Your task to perform on an android device: Search for 'The Girl on the Train' on Goodreads. Image 0: 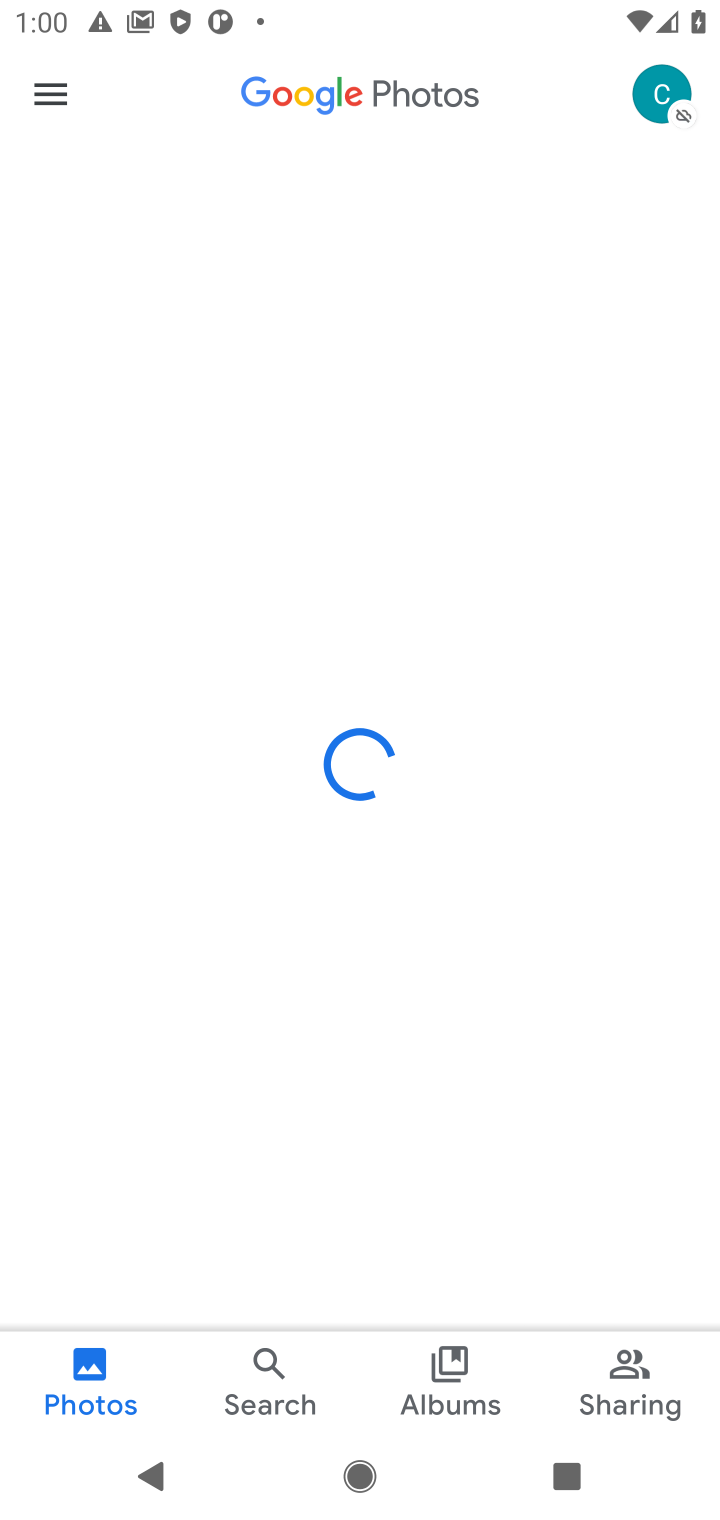
Step 0: press home button
Your task to perform on an android device: Search for 'The Girl on the Train' on Goodreads. Image 1: 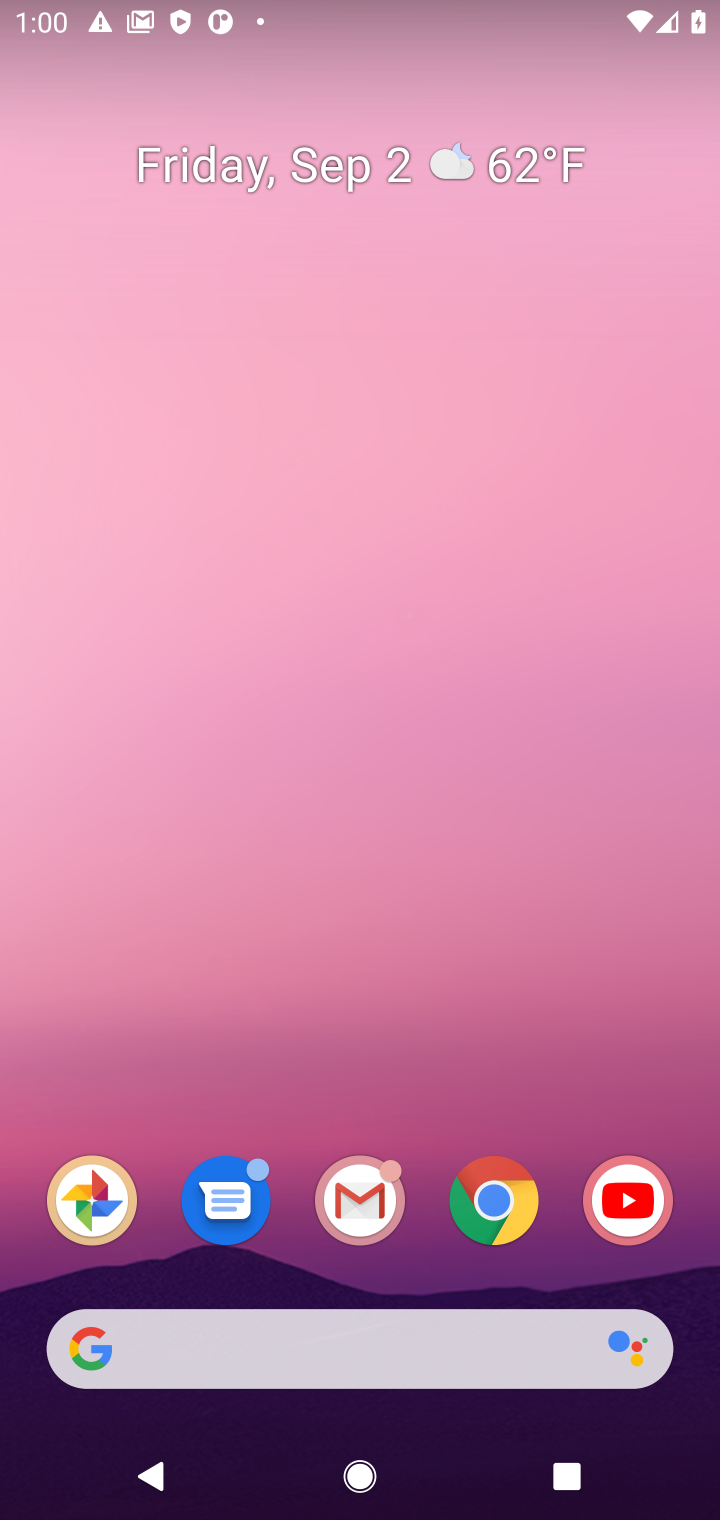
Step 1: click (484, 1202)
Your task to perform on an android device: Search for 'The Girl on the Train' on Goodreads. Image 2: 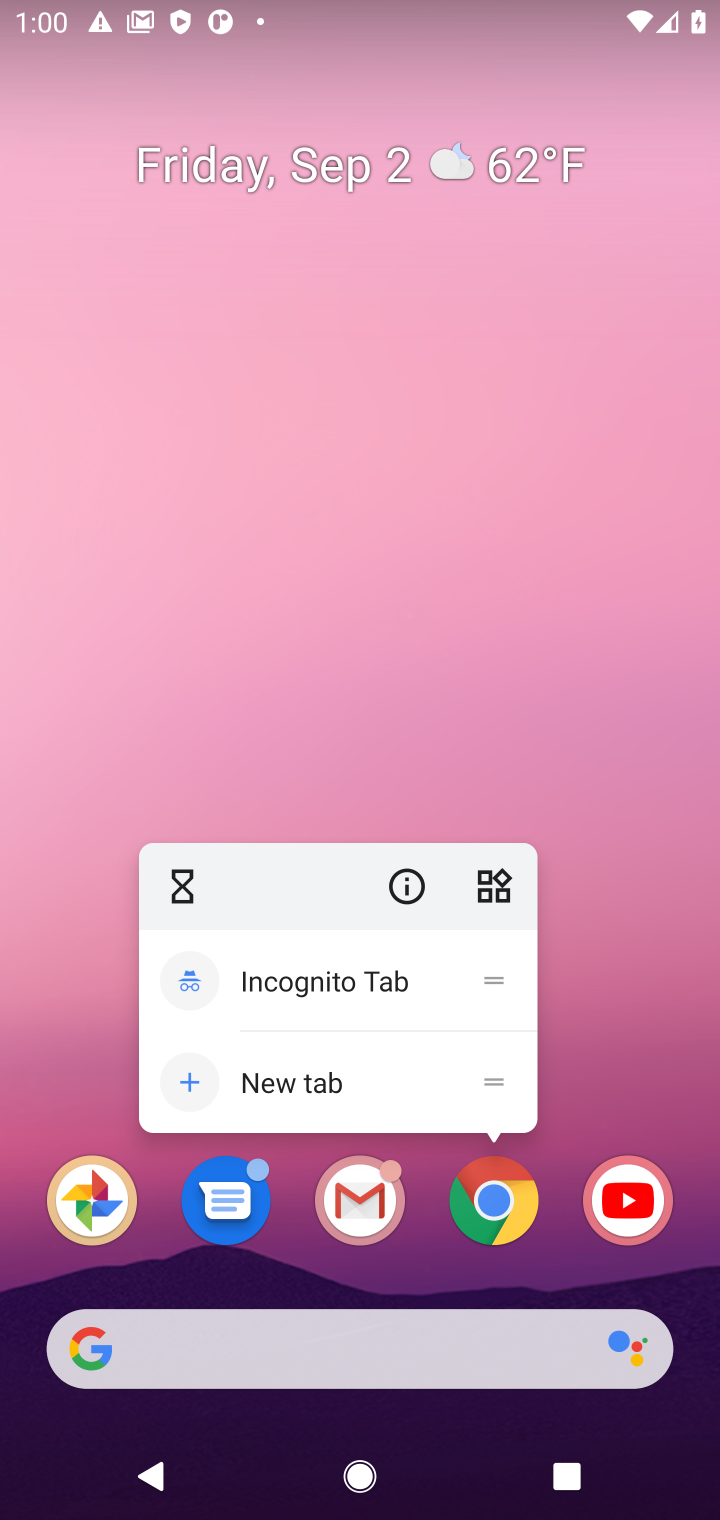
Step 2: click (484, 1204)
Your task to perform on an android device: Search for 'The Girl on the Train' on Goodreads. Image 3: 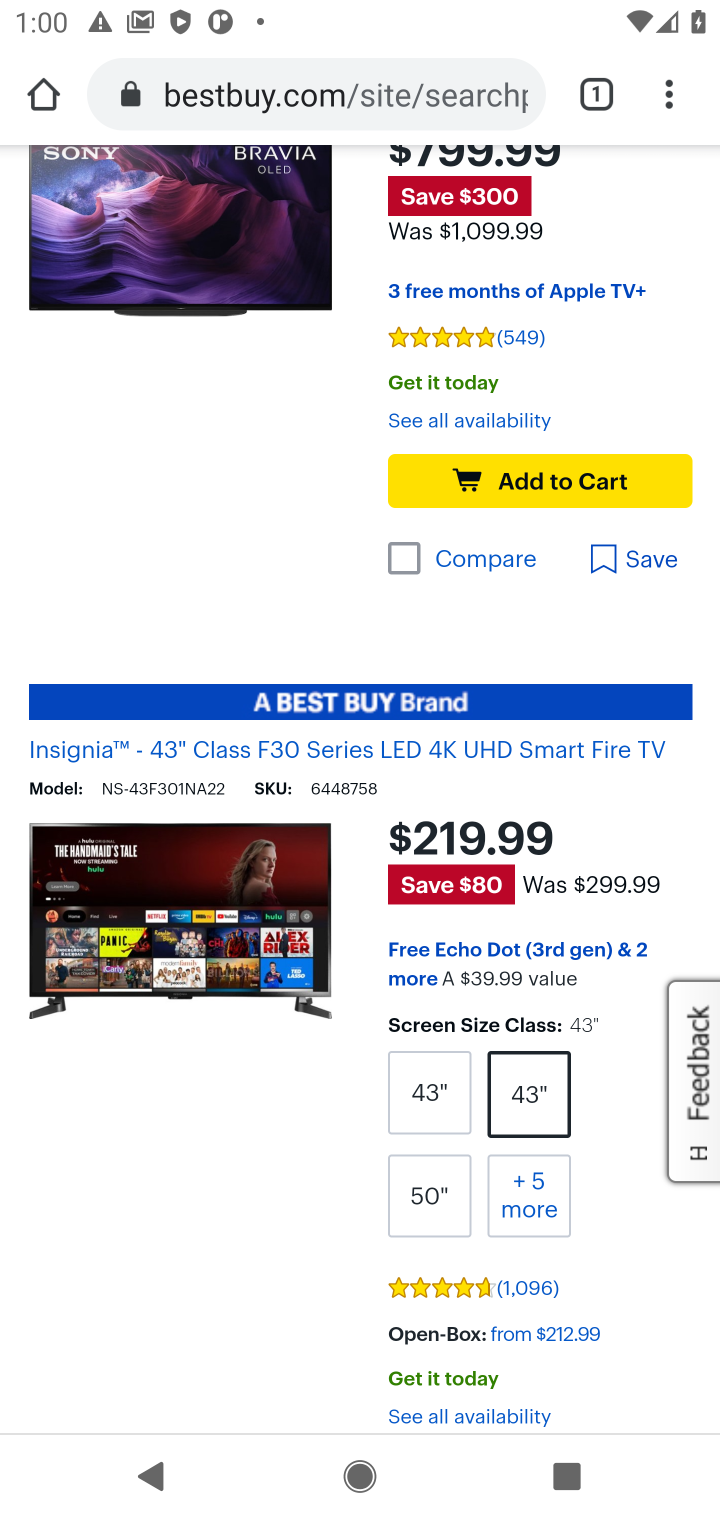
Step 3: click (448, 81)
Your task to perform on an android device: Search for 'The Girl on the Train' on Goodreads. Image 4: 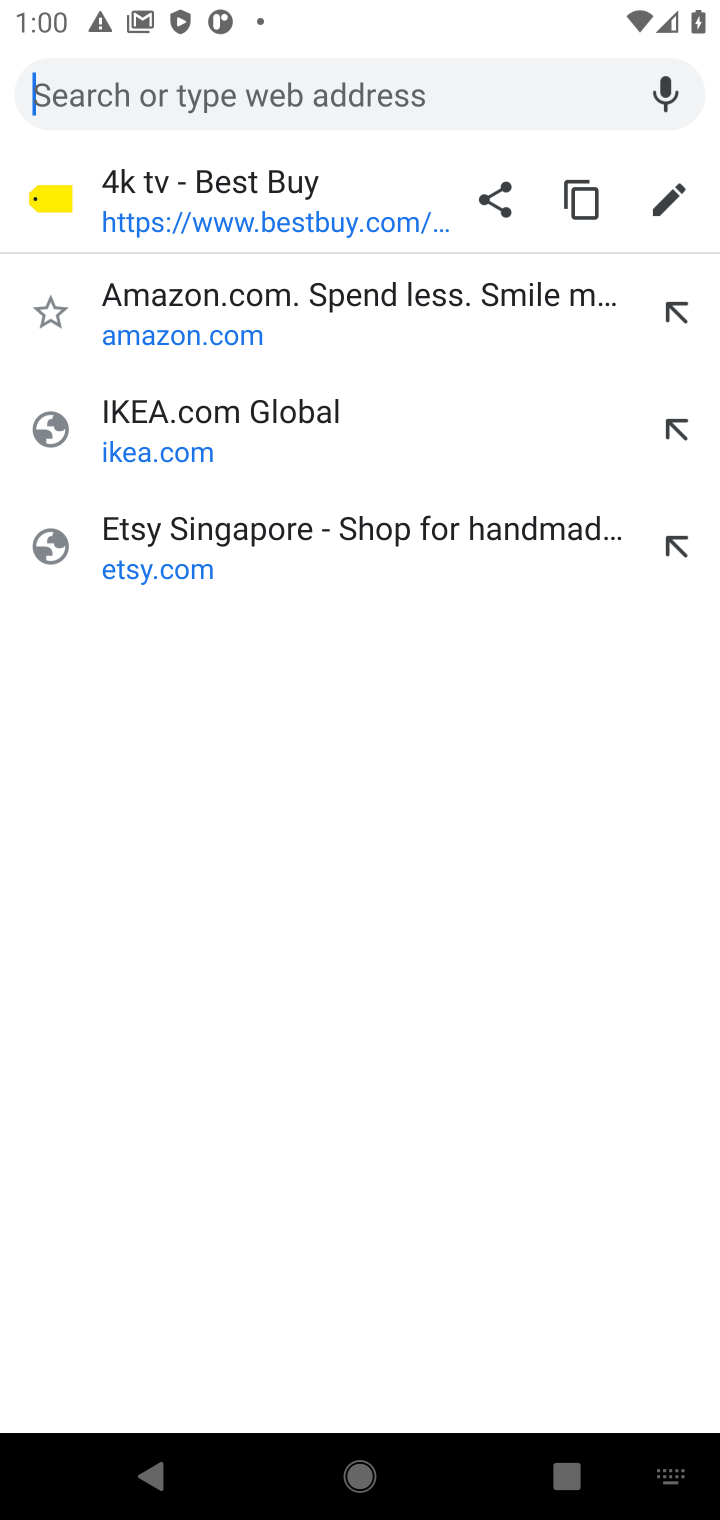
Step 4: type "Goodreads"
Your task to perform on an android device: Search for 'The Girl on the Train' on Goodreads. Image 5: 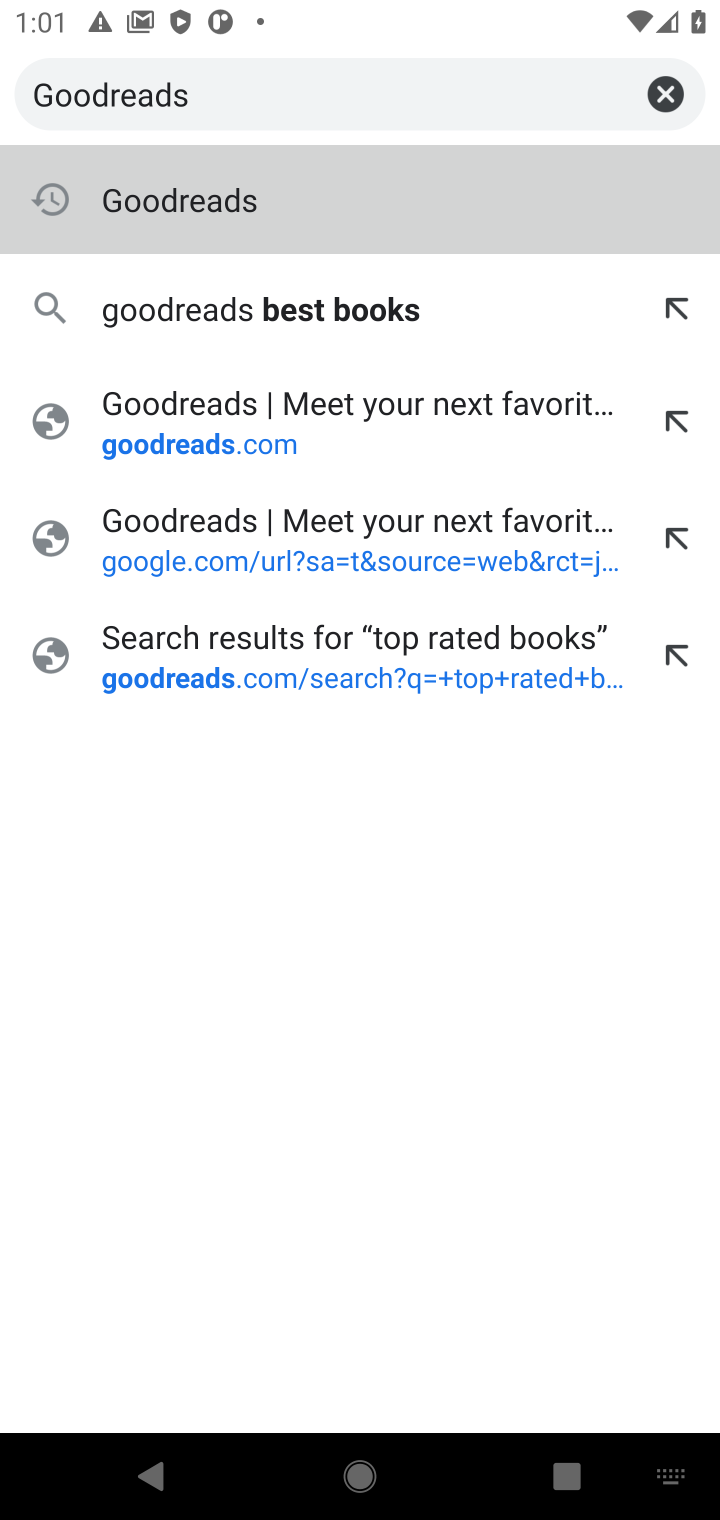
Step 5: press enter
Your task to perform on an android device: Search for 'The Girl on the Train' on Goodreads. Image 6: 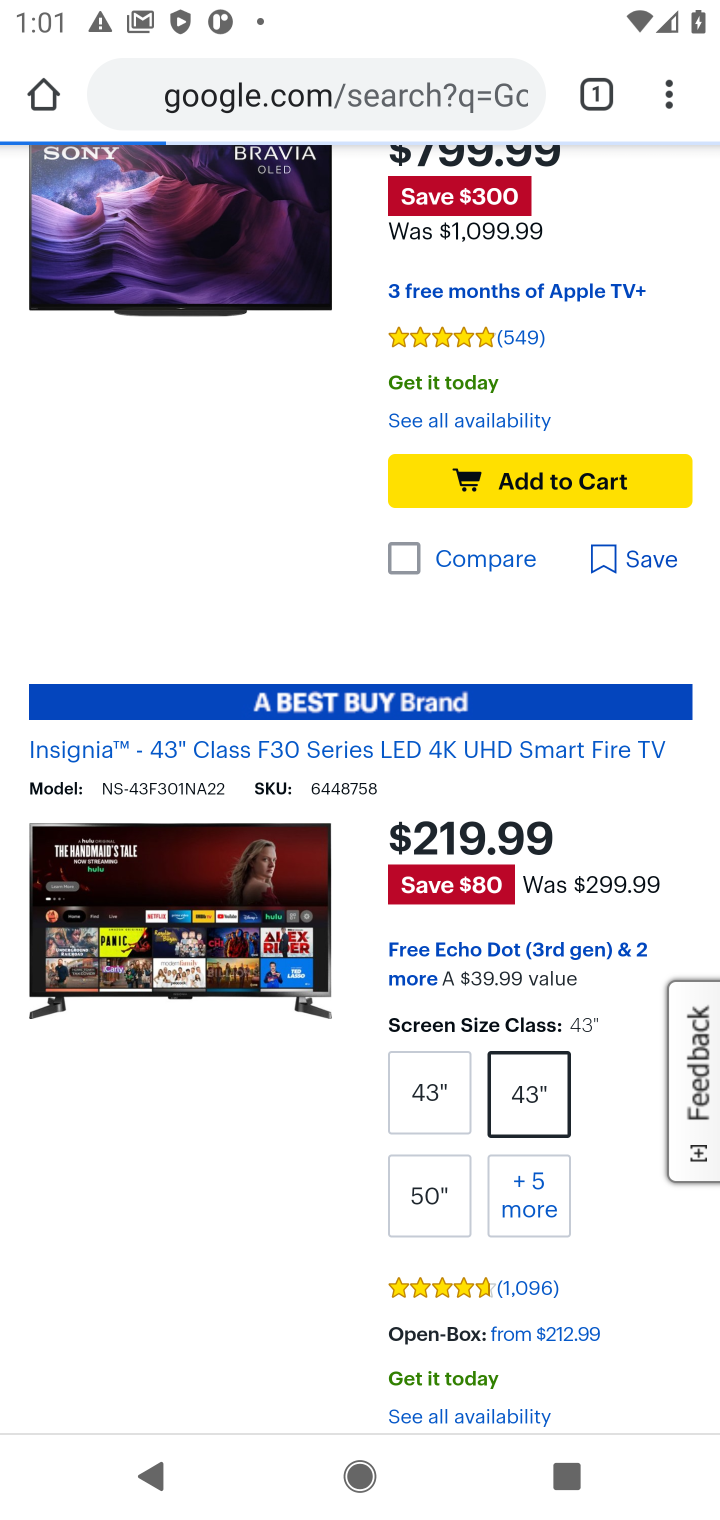
Step 6: click (316, 209)
Your task to perform on an android device: Search for 'The Girl on the Train' on Goodreads. Image 7: 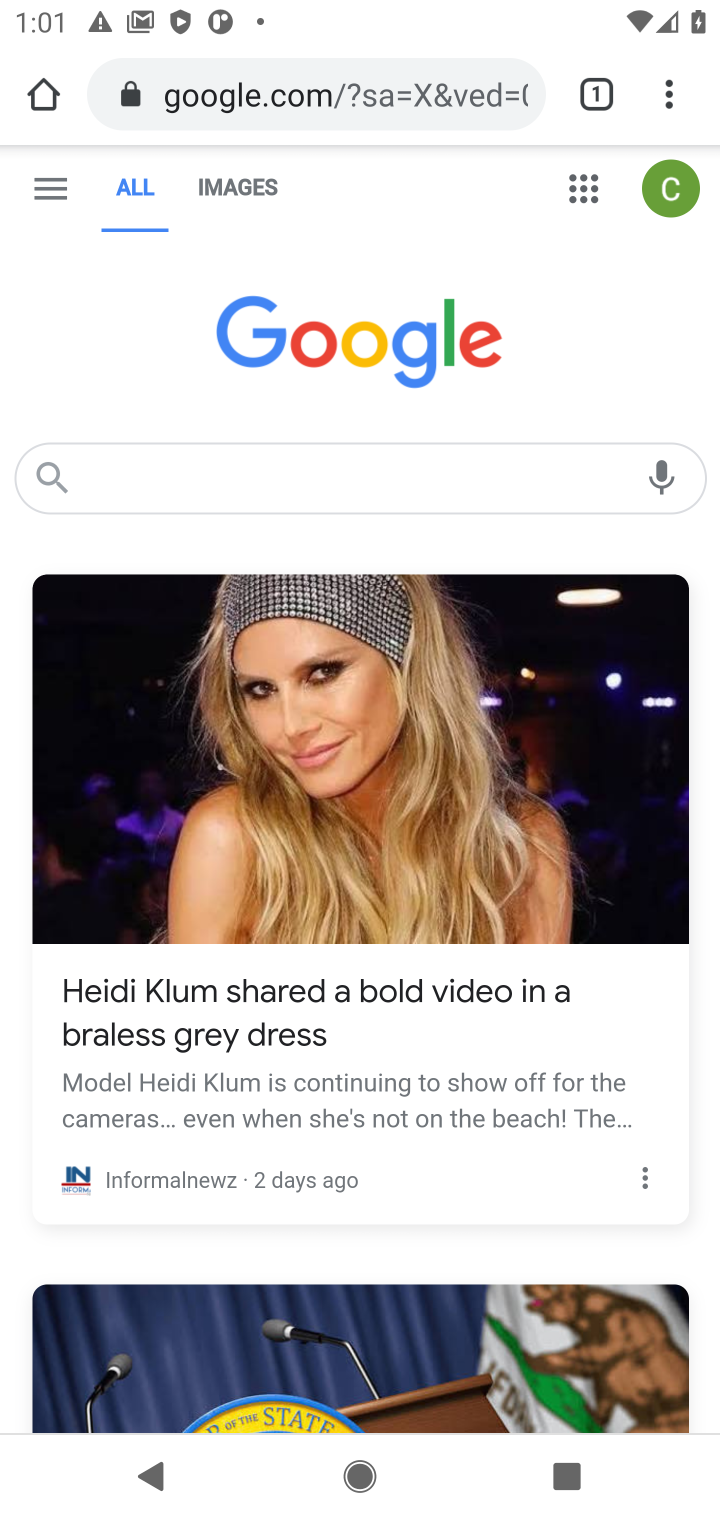
Step 7: click (425, 85)
Your task to perform on an android device: Search for 'The Girl on the Train' on Goodreads. Image 8: 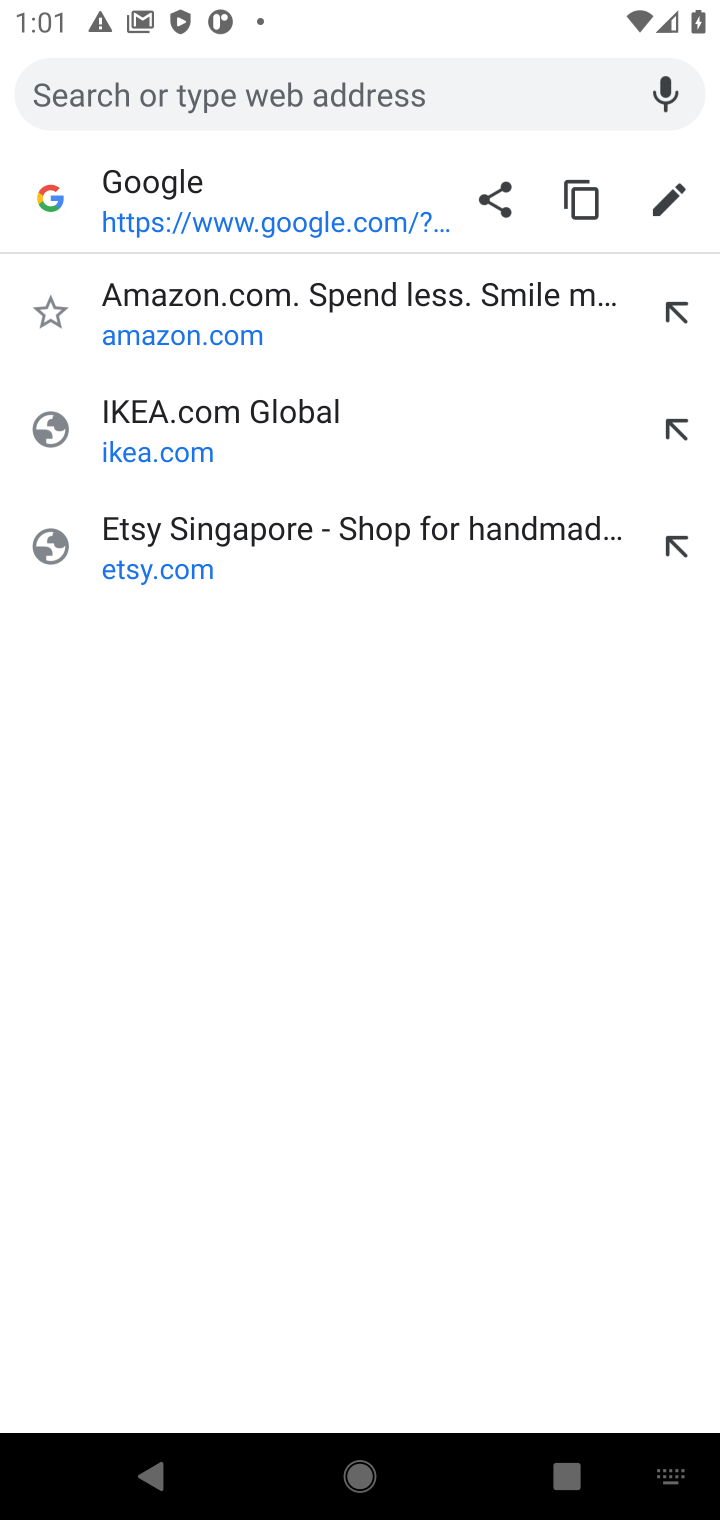
Step 8: type " Goodreads"
Your task to perform on an android device: Search for 'The Girl on the Train' on Goodreads. Image 9: 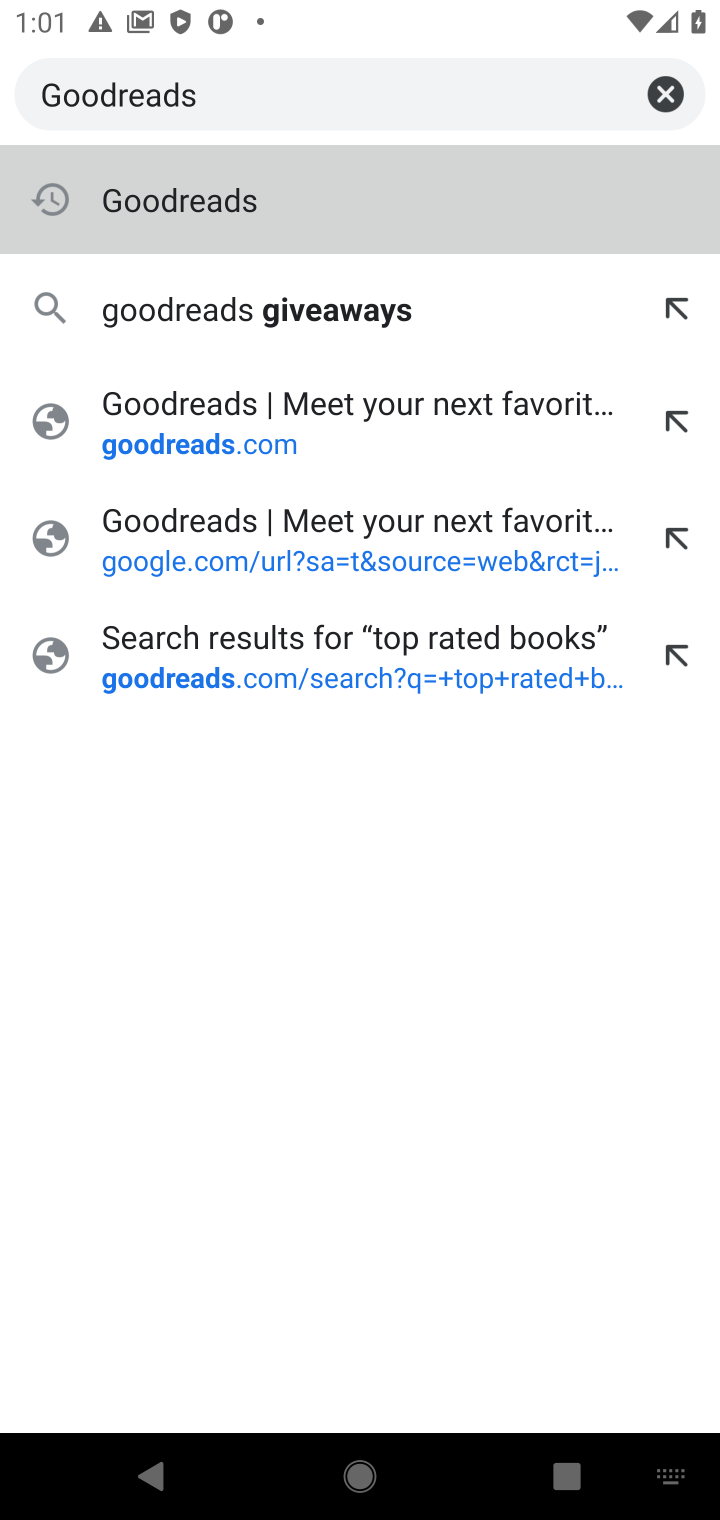
Step 9: press enter
Your task to perform on an android device: Search for 'The Girl on the Train' on Goodreads. Image 10: 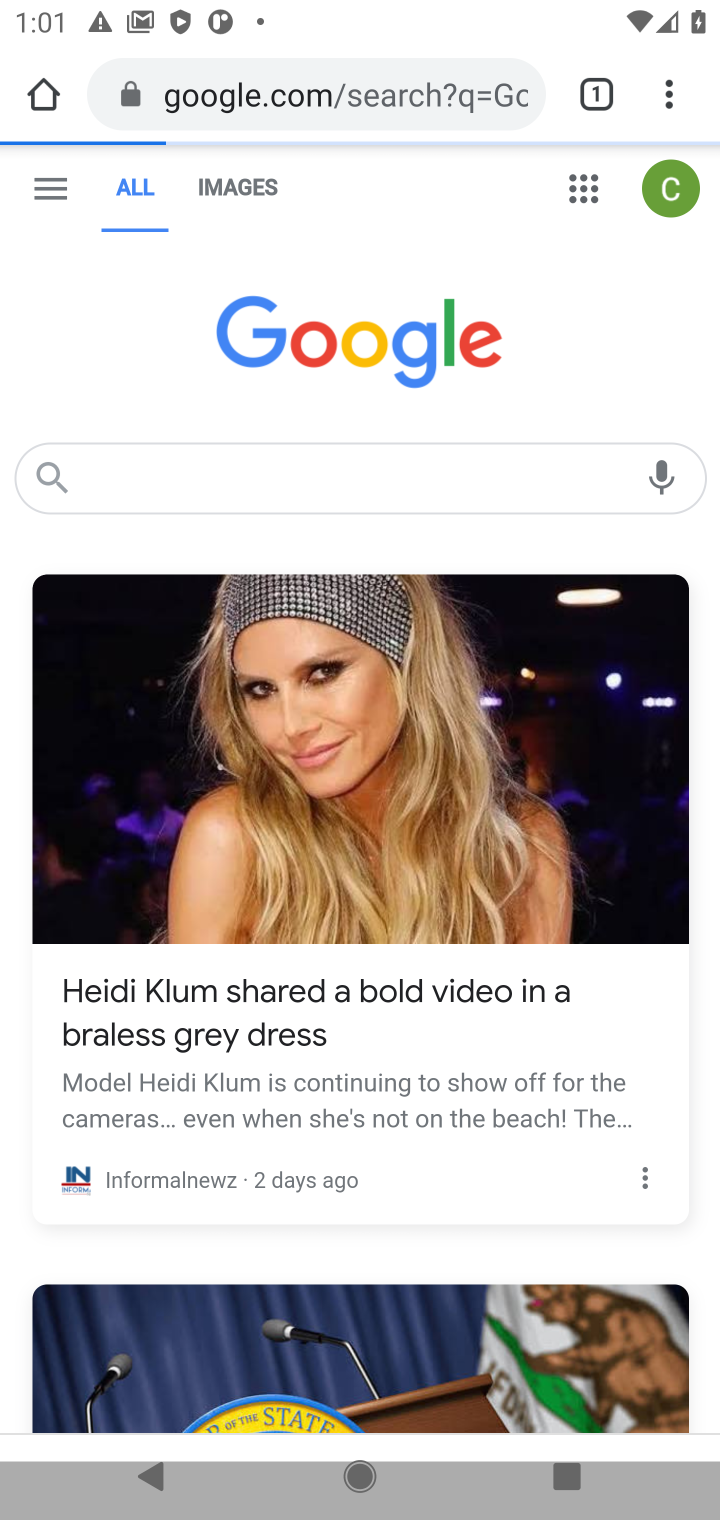
Step 10: click (207, 198)
Your task to perform on an android device: Search for 'The Girl on the Train' on Goodreads. Image 11: 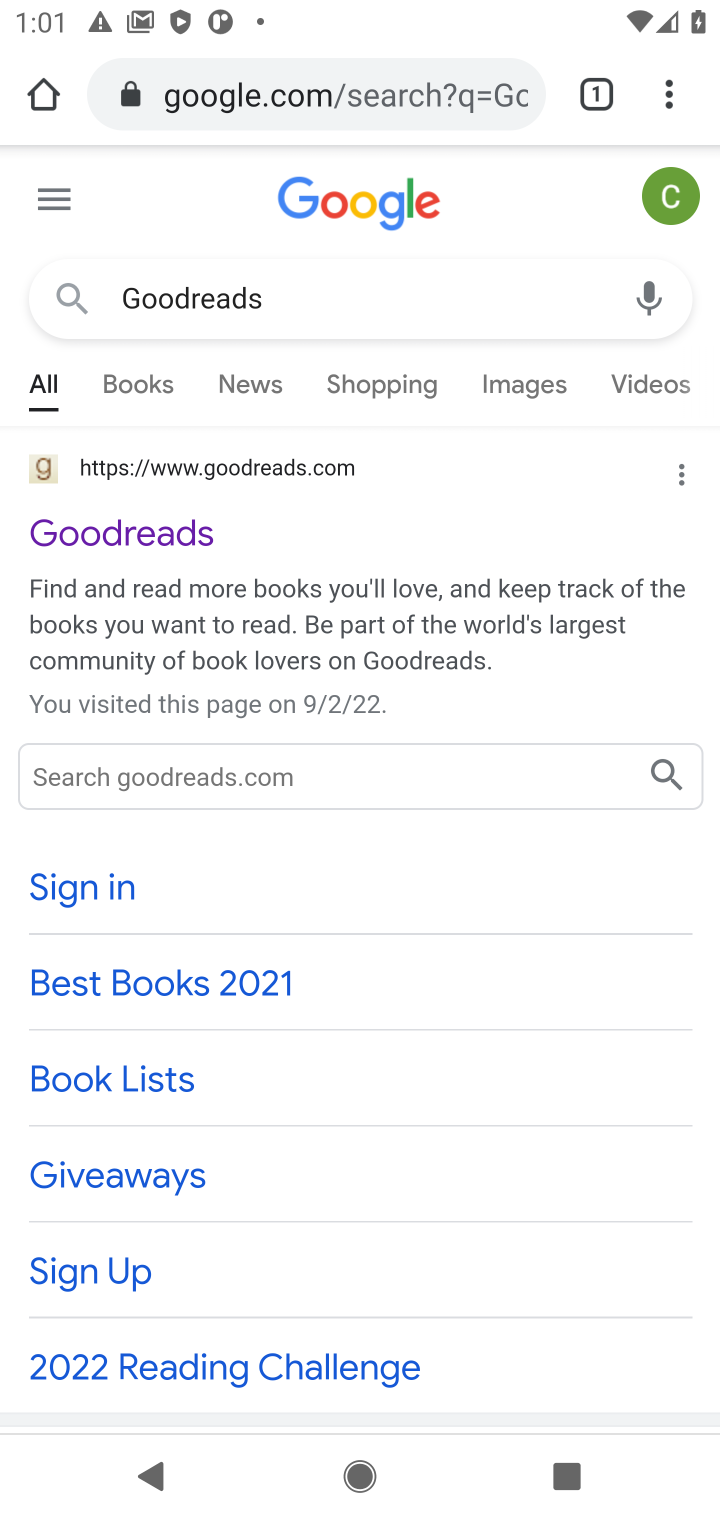
Step 11: click (117, 535)
Your task to perform on an android device: Search for 'The Girl on the Train' on Goodreads. Image 12: 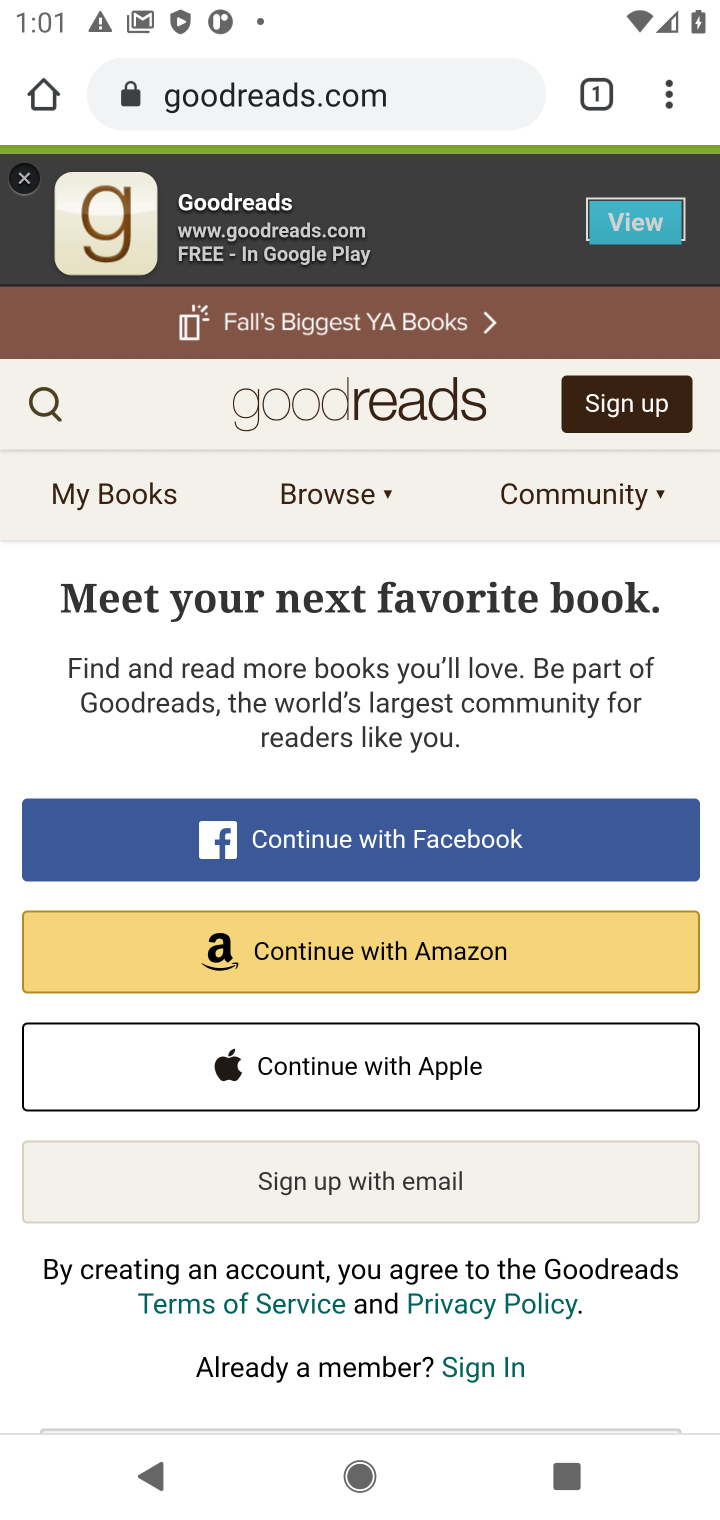
Step 12: click (43, 386)
Your task to perform on an android device: Search for 'The Girl on the Train' on Goodreads. Image 13: 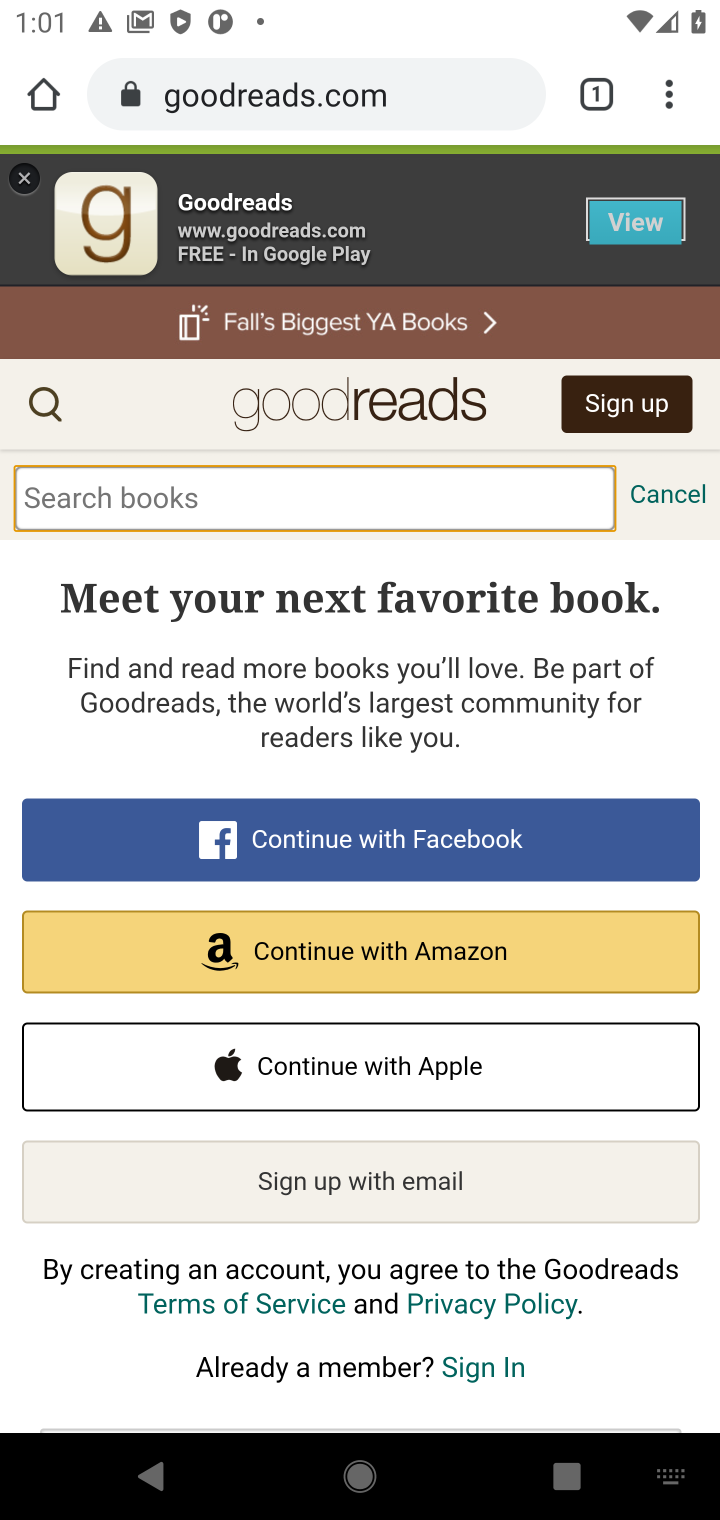
Step 13: click (38, 394)
Your task to perform on an android device: Search for 'The Girl on the Train' on Goodreads. Image 14: 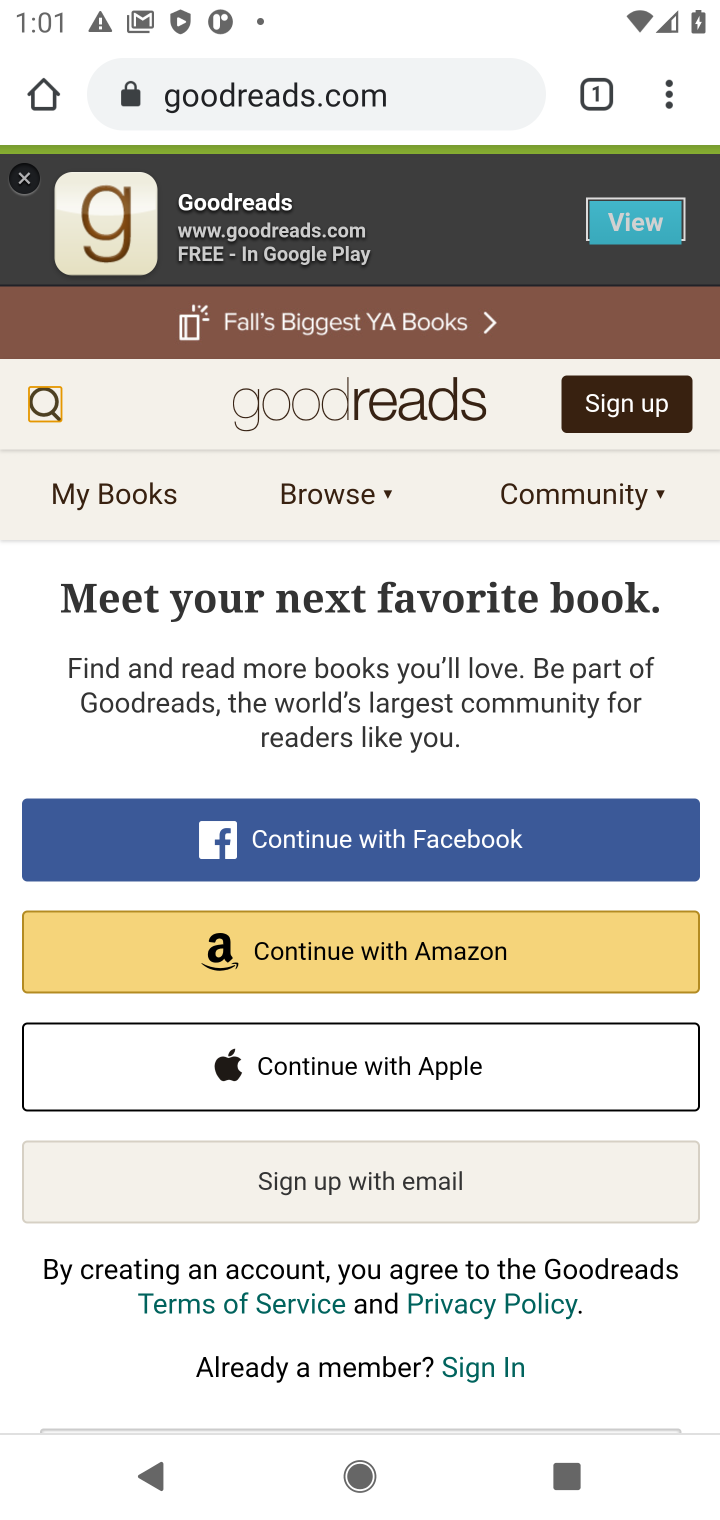
Step 14: click (42, 397)
Your task to perform on an android device: Search for 'The Girl on the Train' on Goodreads. Image 15: 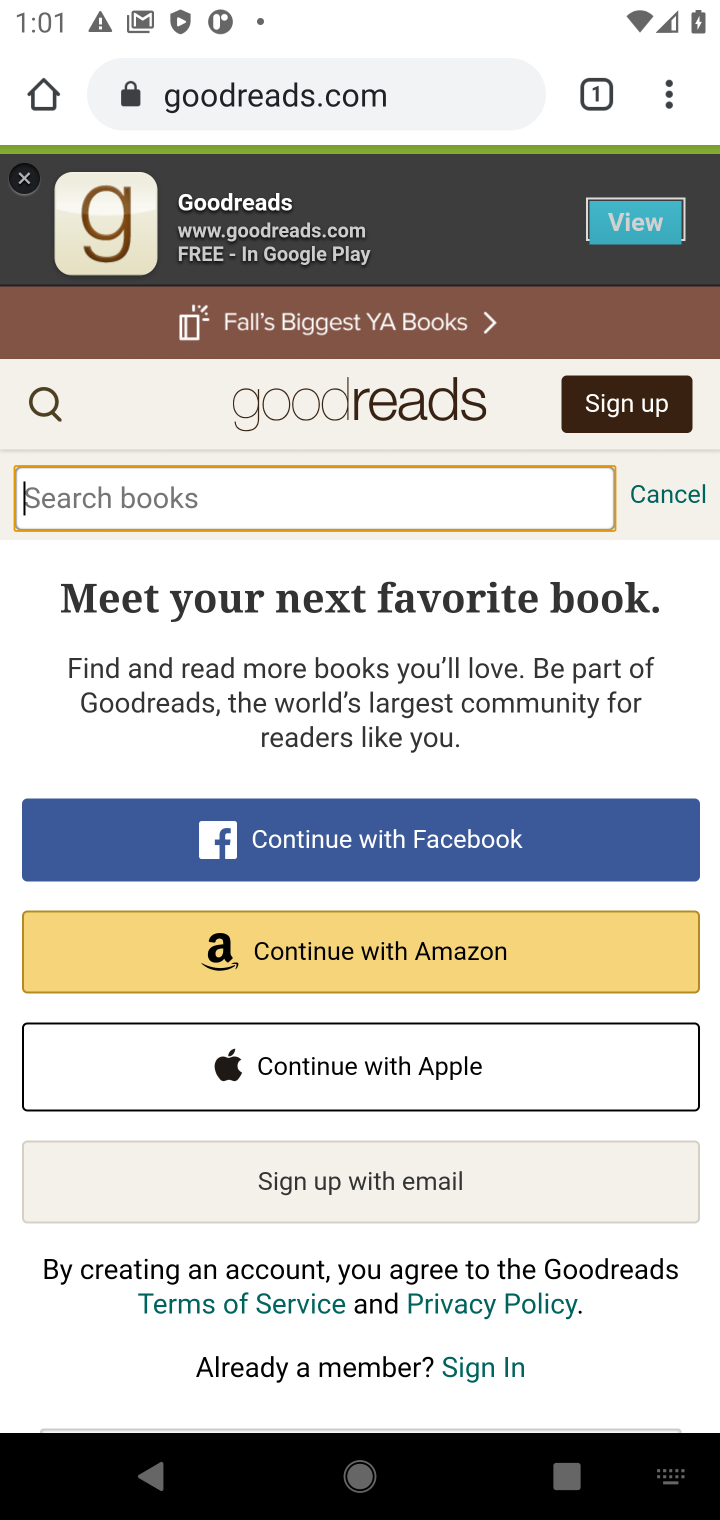
Step 15: type "The Girl on the Train"
Your task to perform on an android device: Search for 'The Girl on the Train' on Goodreads. Image 16: 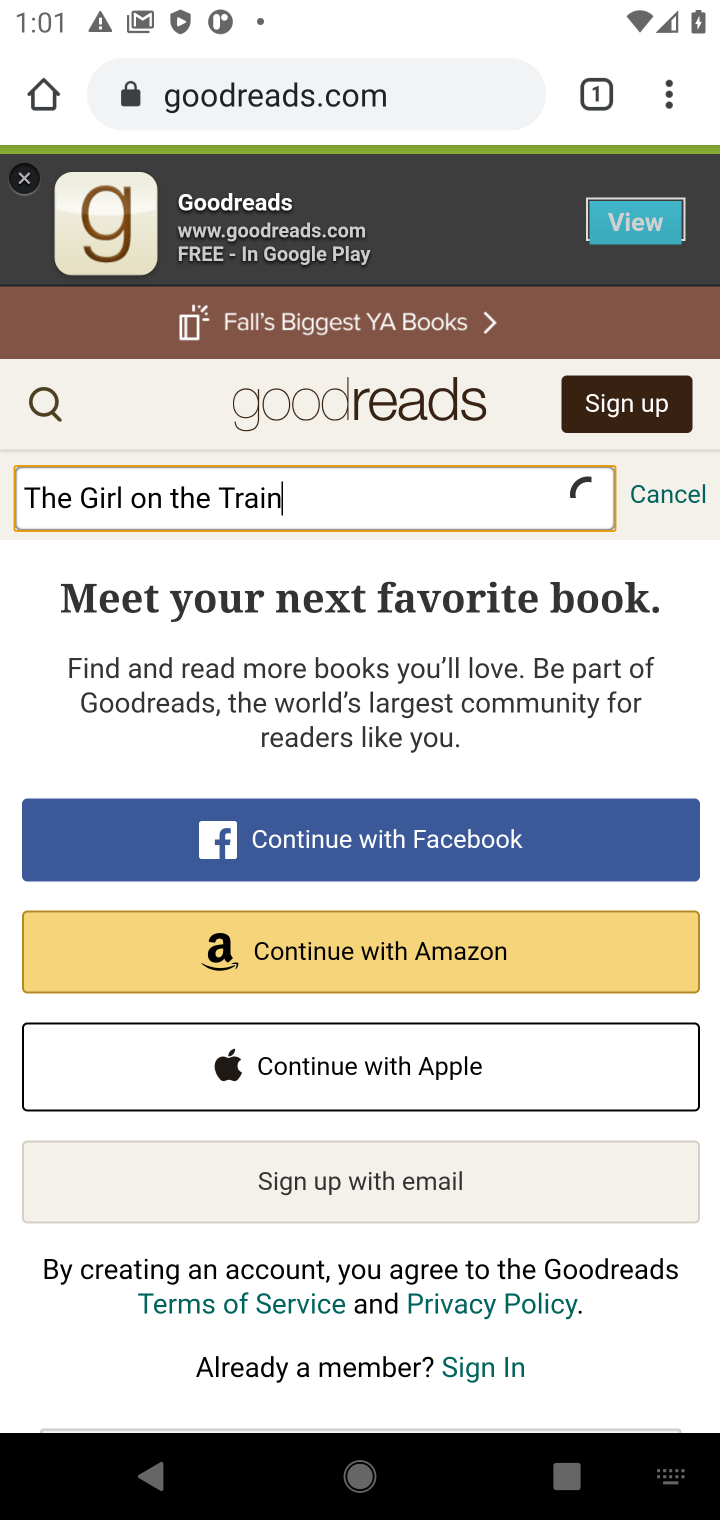
Step 16: press enter
Your task to perform on an android device: Search for 'The Girl on the Train' on Goodreads. Image 17: 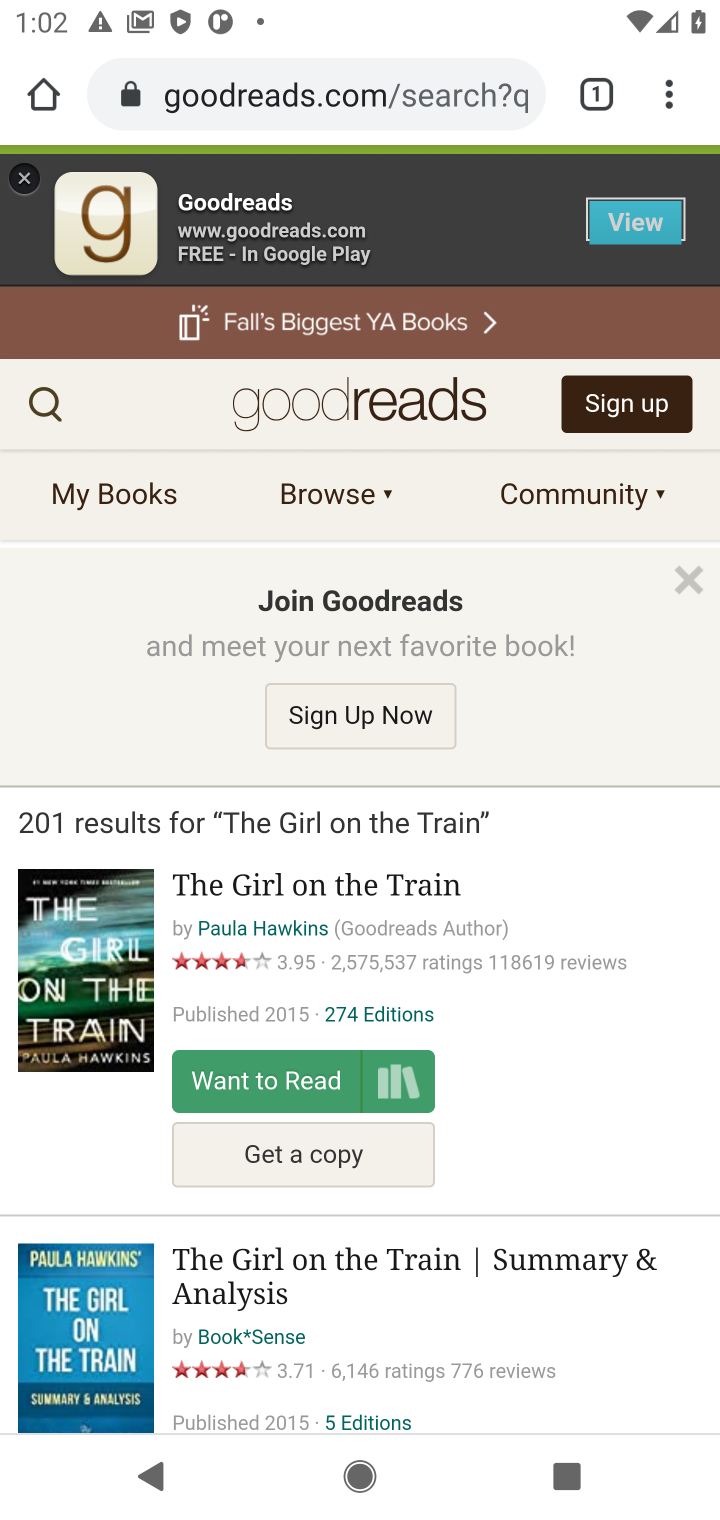
Step 17: task complete